Your task to perform on an android device: toggle airplane mode Image 0: 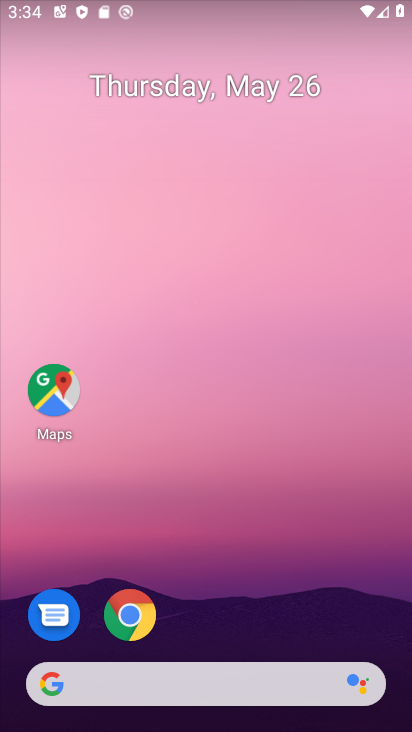
Step 0: drag from (352, 7) to (281, 421)
Your task to perform on an android device: toggle airplane mode Image 1: 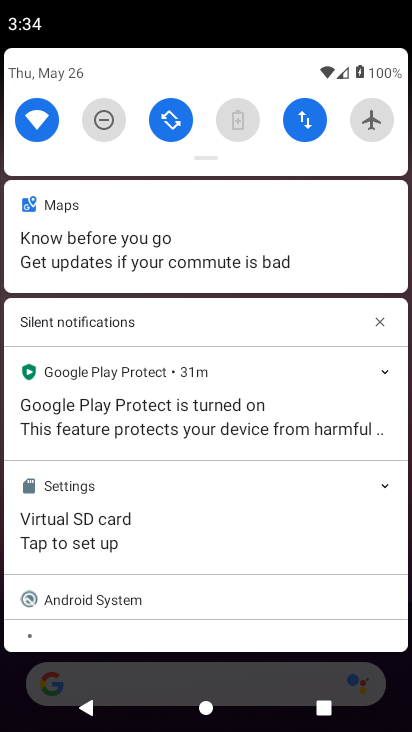
Step 1: click (356, 121)
Your task to perform on an android device: toggle airplane mode Image 2: 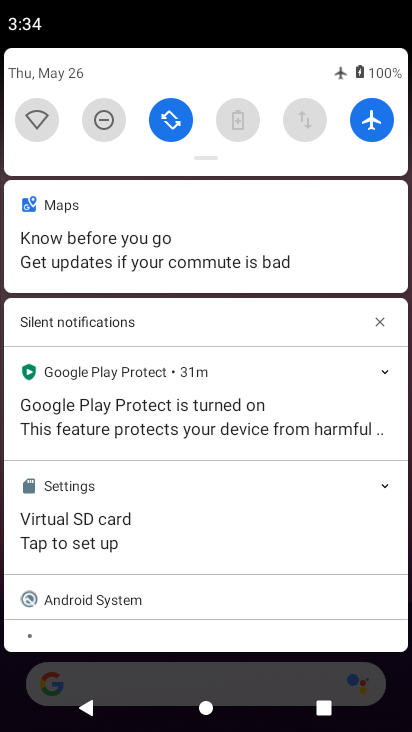
Step 2: task complete